Your task to perform on an android device: check out phone information Image 0: 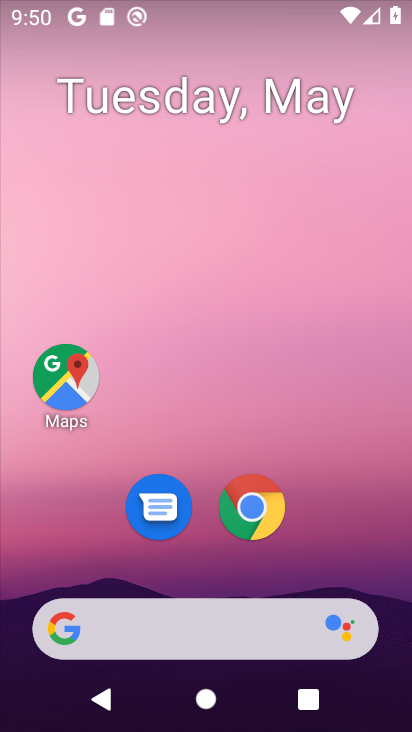
Step 0: drag from (321, 547) to (302, 62)
Your task to perform on an android device: check out phone information Image 1: 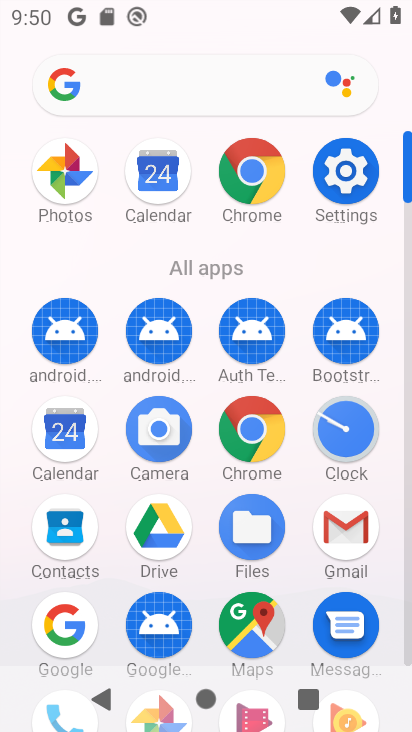
Step 1: click (353, 167)
Your task to perform on an android device: check out phone information Image 2: 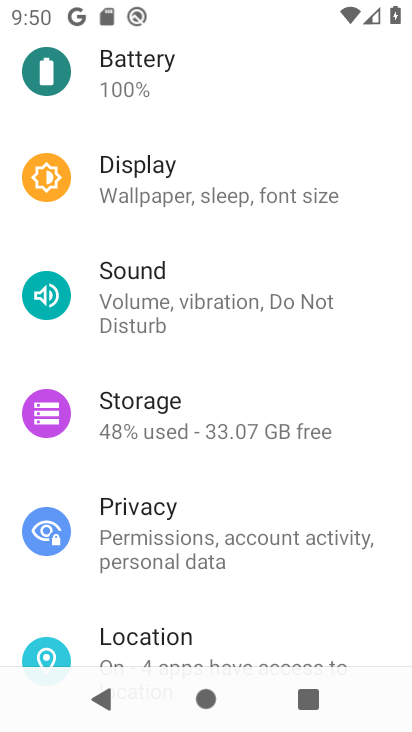
Step 2: drag from (296, 611) to (318, 89)
Your task to perform on an android device: check out phone information Image 3: 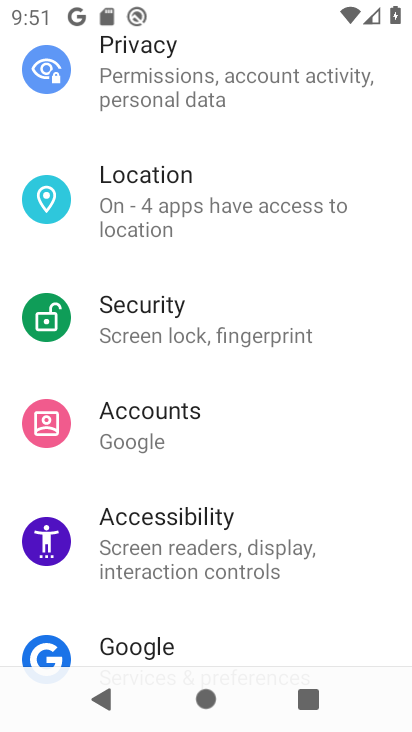
Step 3: drag from (278, 605) to (303, 164)
Your task to perform on an android device: check out phone information Image 4: 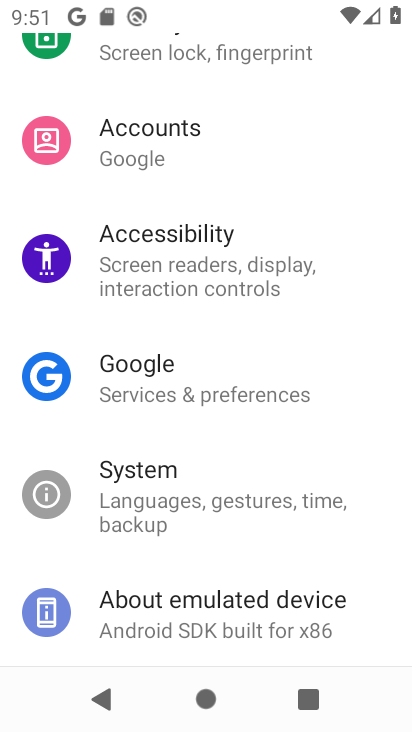
Step 4: drag from (289, 579) to (328, 53)
Your task to perform on an android device: check out phone information Image 5: 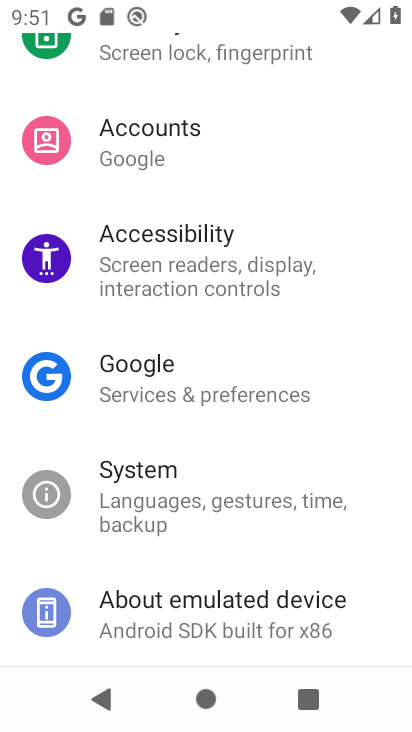
Step 5: click (244, 630)
Your task to perform on an android device: check out phone information Image 6: 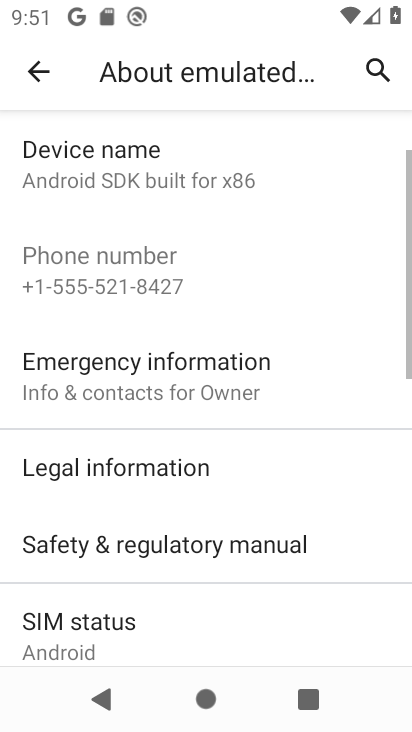
Step 6: drag from (273, 641) to (362, 129)
Your task to perform on an android device: check out phone information Image 7: 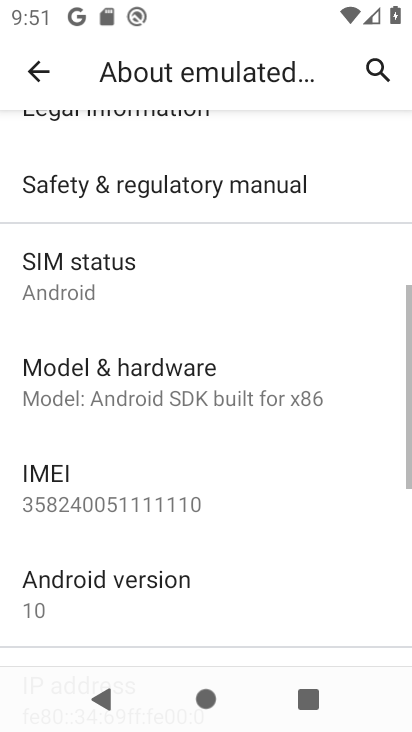
Step 7: drag from (225, 569) to (269, 60)
Your task to perform on an android device: check out phone information Image 8: 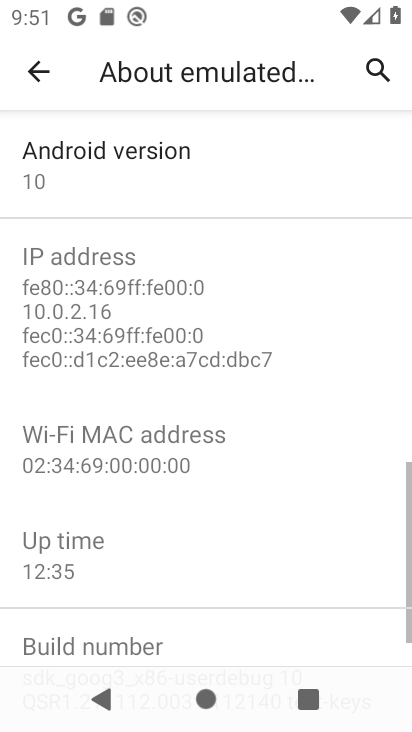
Step 8: drag from (252, 614) to (310, 93)
Your task to perform on an android device: check out phone information Image 9: 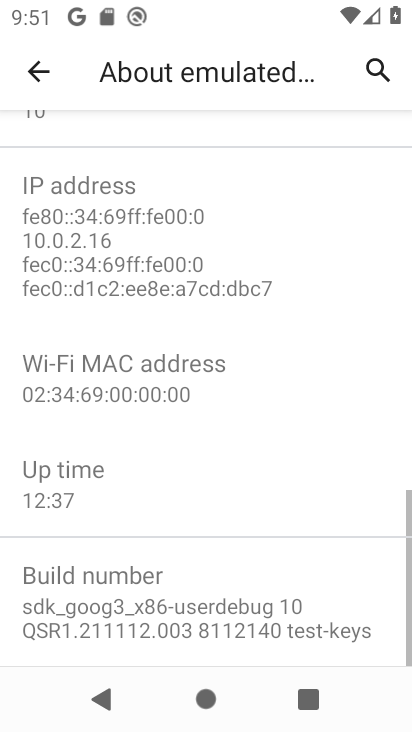
Step 9: drag from (286, 168) to (336, 676)
Your task to perform on an android device: check out phone information Image 10: 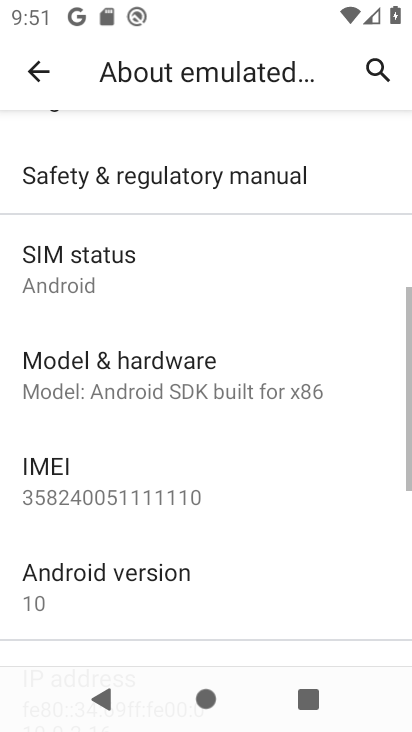
Step 10: click (243, 381)
Your task to perform on an android device: check out phone information Image 11: 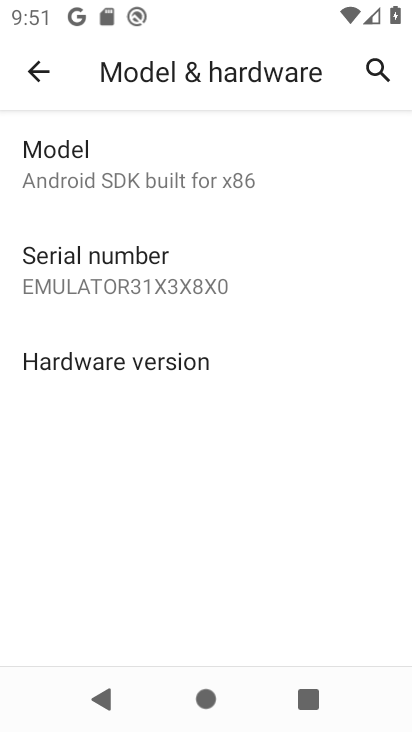
Step 11: task complete